Your task to perform on an android device: turn vacation reply on in the gmail app Image 0: 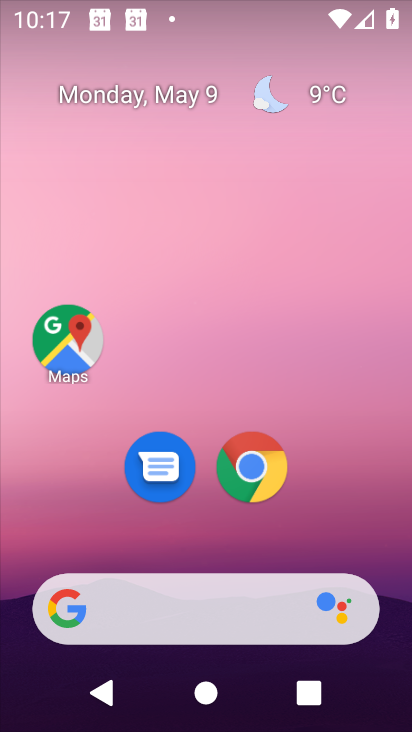
Step 0: drag from (351, 555) to (280, 18)
Your task to perform on an android device: turn vacation reply on in the gmail app Image 1: 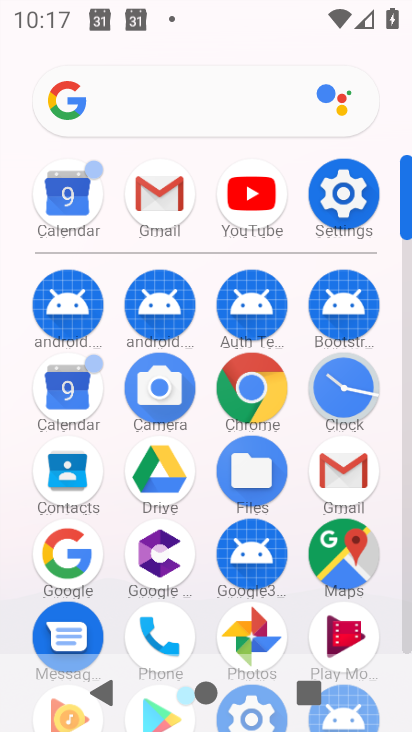
Step 1: click (142, 190)
Your task to perform on an android device: turn vacation reply on in the gmail app Image 2: 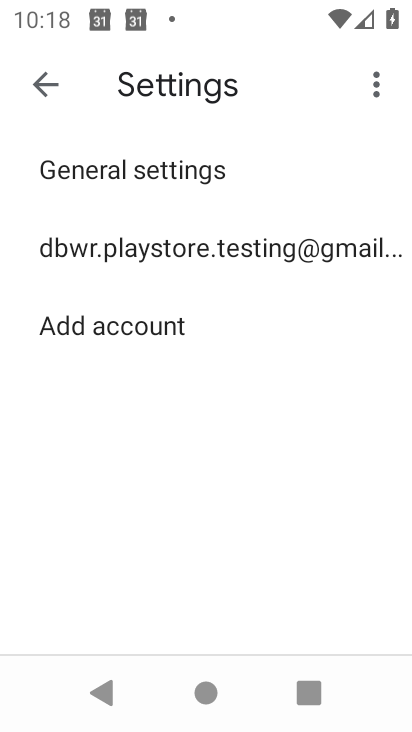
Step 2: click (149, 260)
Your task to perform on an android device: turn vacation reply on in the gmail app Image 3: 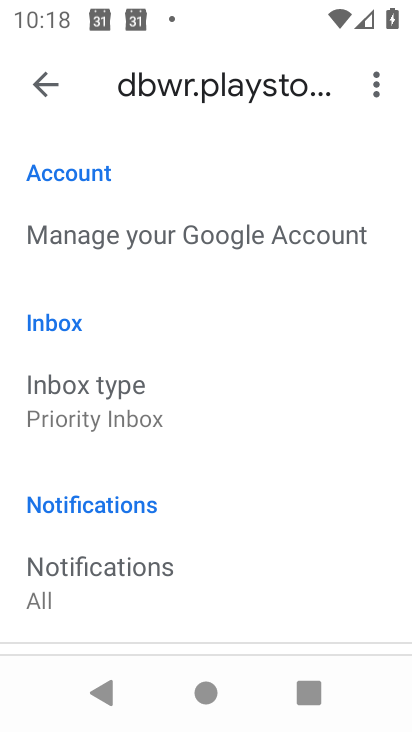
Step 3: drag from (232, 549) to (216, 187)
Your task to perform on an android device: turn vacation reply on in the gmail app Image 4: 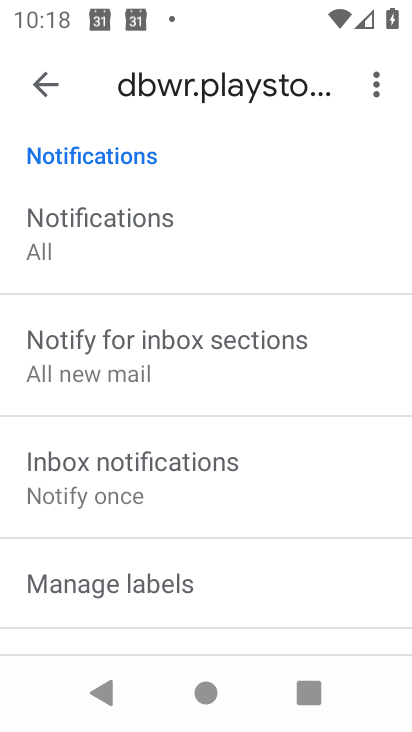
Step 4: drag from (205, 516) to (189, 162)
Your task to perform on an android device: turn vacation reply on in the gmail app Image 5: 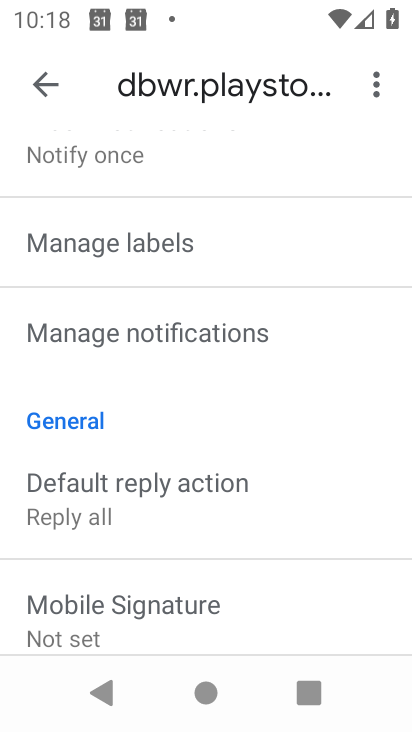
Step 5: drag from (161, 482) to (160, 175)
Your task to perform on an android device: turn vacation reply on in the gmail app Image 6: 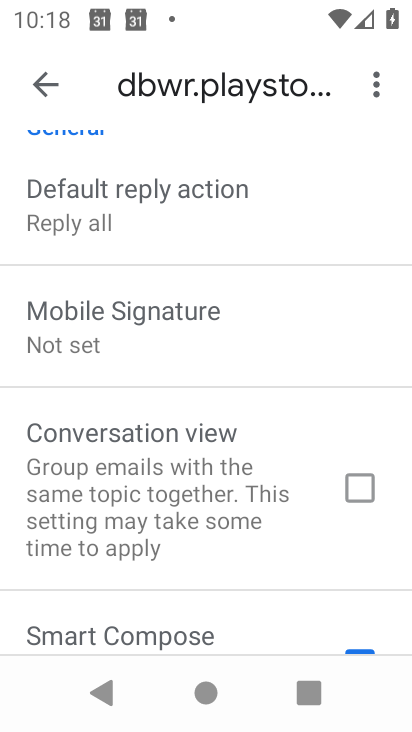
Step 6: drag from (148, 515) to (143, 167)
Your task to perform on an android device: turn vacation reply on in the gmail app Image 7: 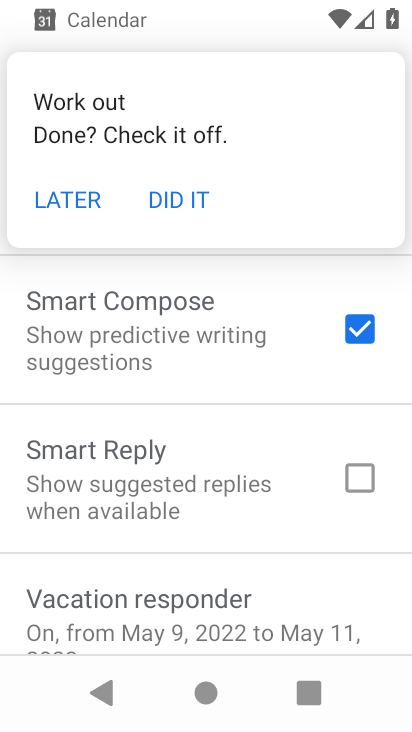
Step 7: click (59, 206)
Your task to perform on an android device: turn vacation reply on in the gmail app Image 8: 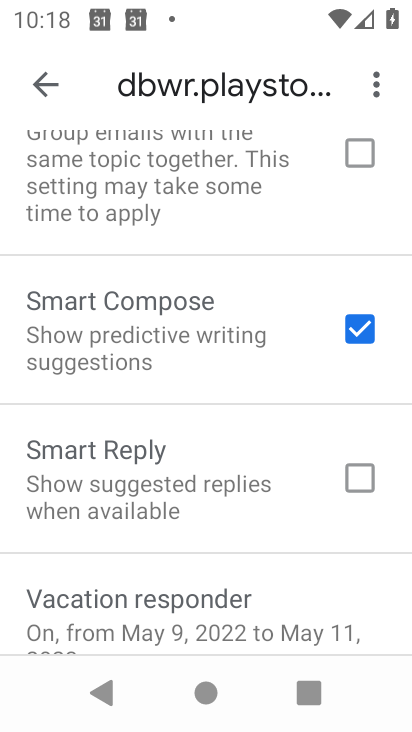
Step 8: drag from (169, 542) to (168, 237)
Your task to perform on an android device: turn vacation reply on in the gmail app Image 9: 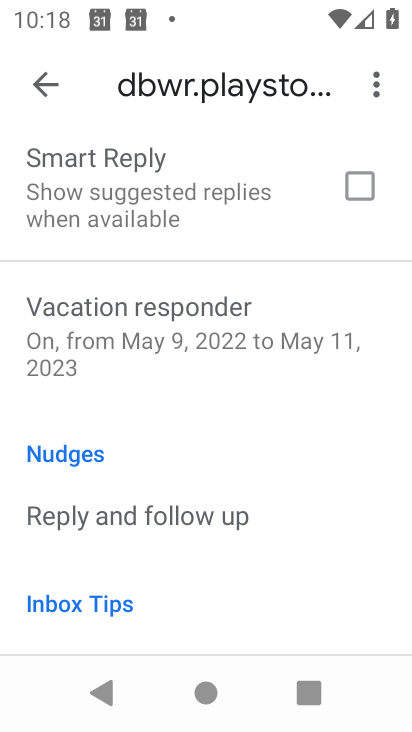
Step 9: click (140, 343)
Your task to perform on an android device: turn vacation reply on in the gmail app Image 10: 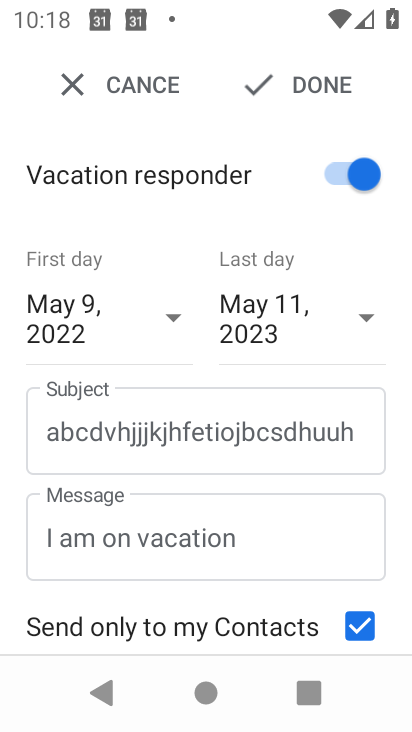
Step 10: click (297, 88)
Your task to perform on an android device: turn vacation reply on in the gmail app Image 11: 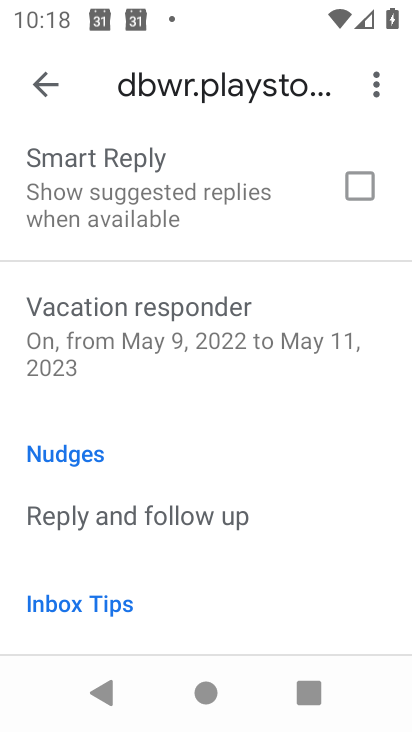
Step 11: task complete